Your task to perform on an android device: Open eBay Image 0: 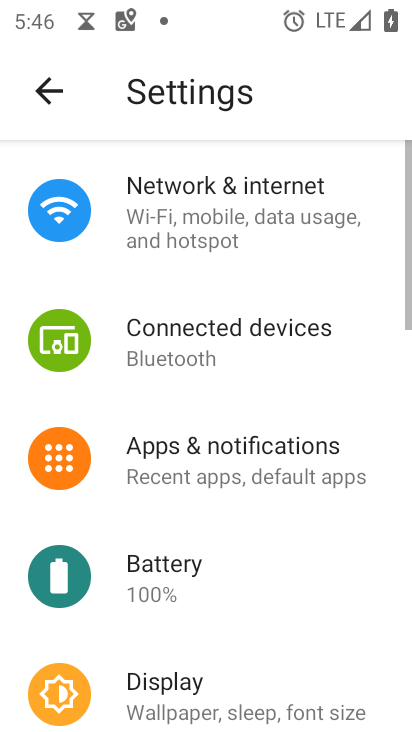
Step 0: press home button
Your task to perform on an android device: Open eBay Image 1: 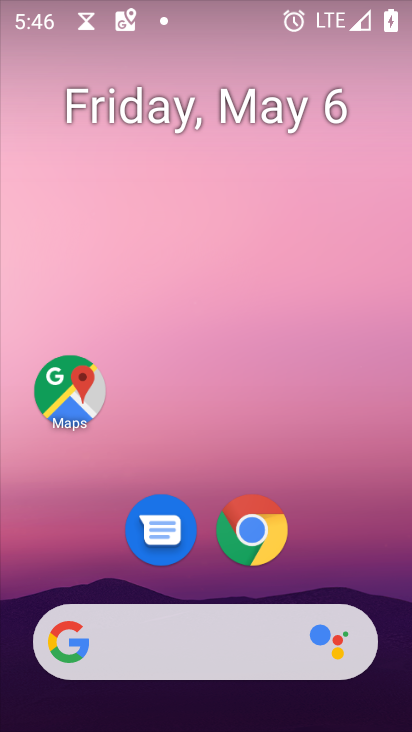
Step 1: click (263, 543)
Your task to perform on an android device: Open eBay Image 2: 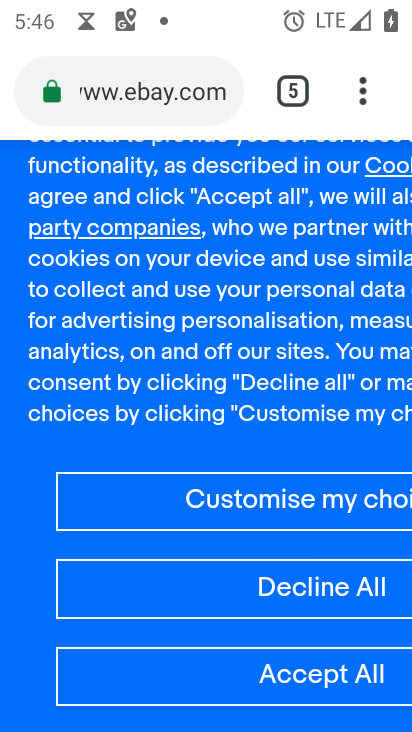
Step 2: task complete